Your task to perform on an android device: Open Google Image 0: 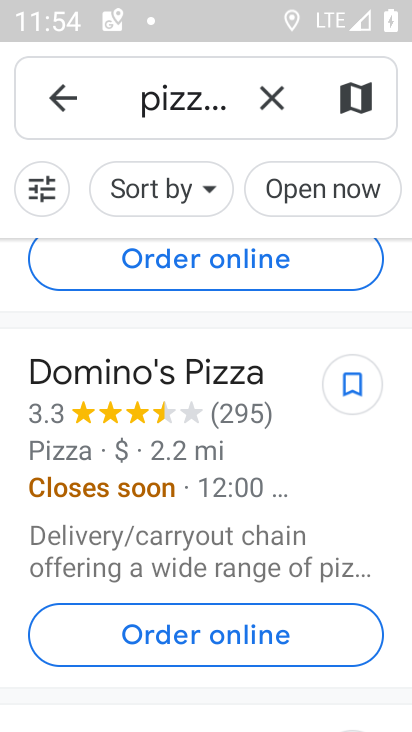
Step 0: press home button
Your task to perform on an android device: Open Google Image 1: 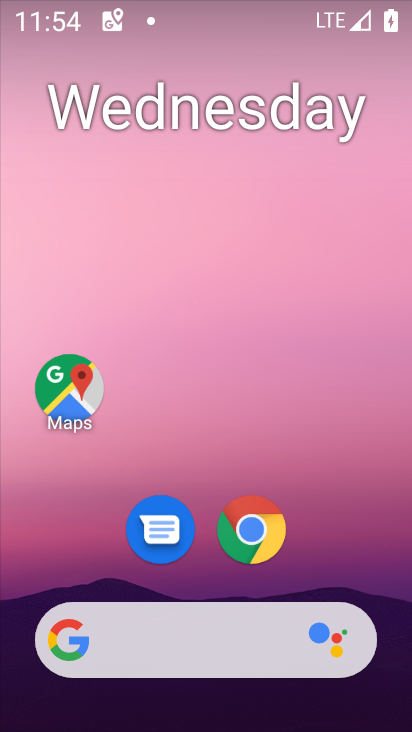
Step 1: click (252, 526)
Your task to perform on an android device: Open Google Image 2: 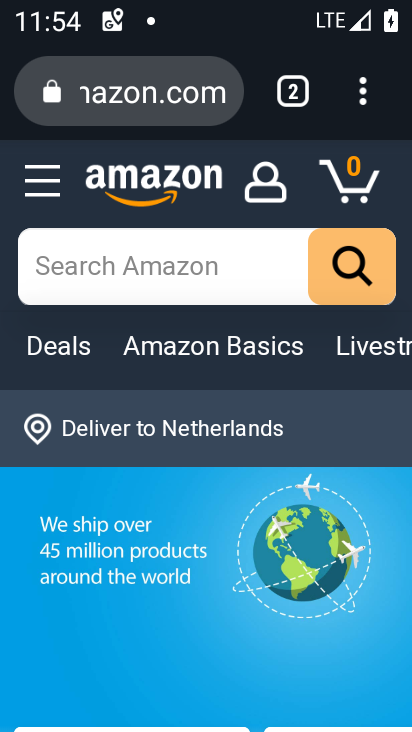
Step 2: task complete